Your task to perform on an android device: turn pop-ups on in chrome Image 0: 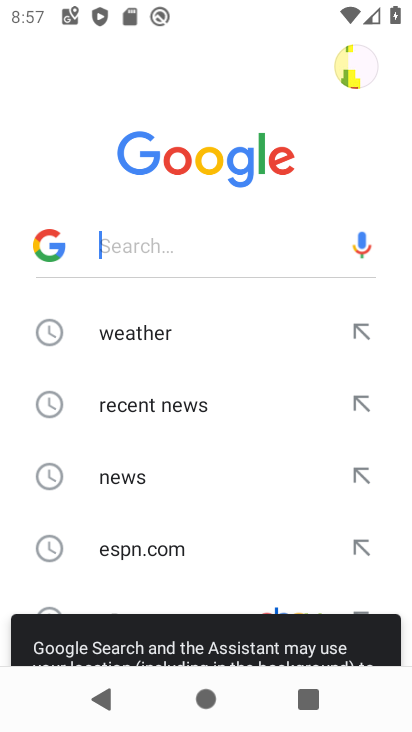
Step 0: click (221, 525)
Your task to perform on an android device: turn pop-ups on in chrome Image 1: 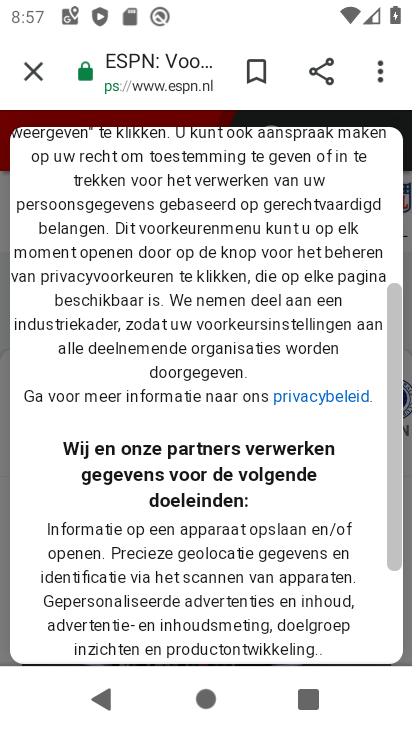
Step 1: press home button
Your task to perform on an android device: turn pop-ups on in chrome Image 2: 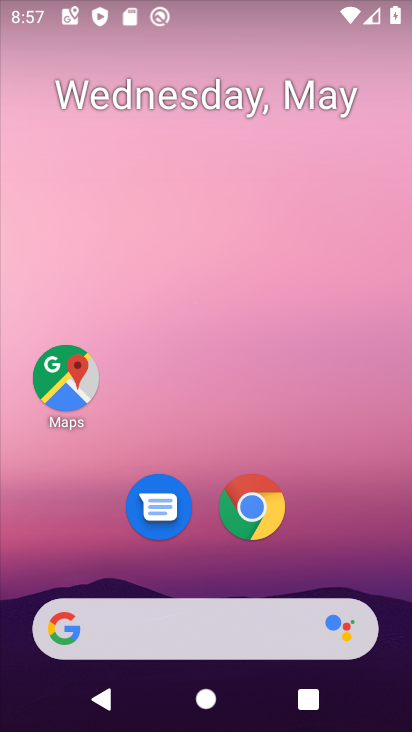
Step 2: click (270, 505)
Your task to perform on an android device: turn pop-ups on in chrome Image 3: 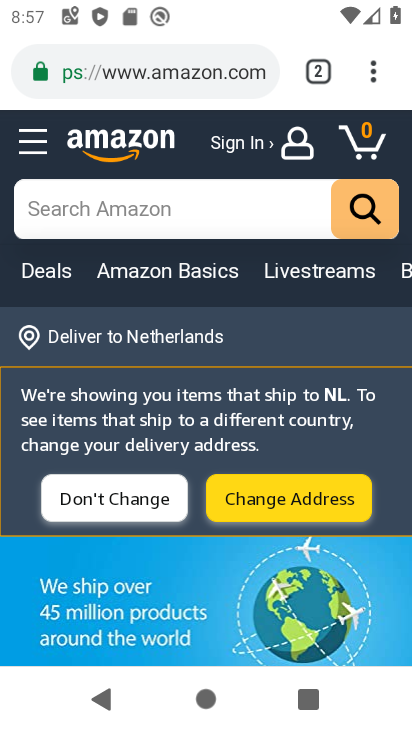
Step 3: click (365, 72)
Your task to perform on an android device: turn pop-ups on in chrome Image 4: 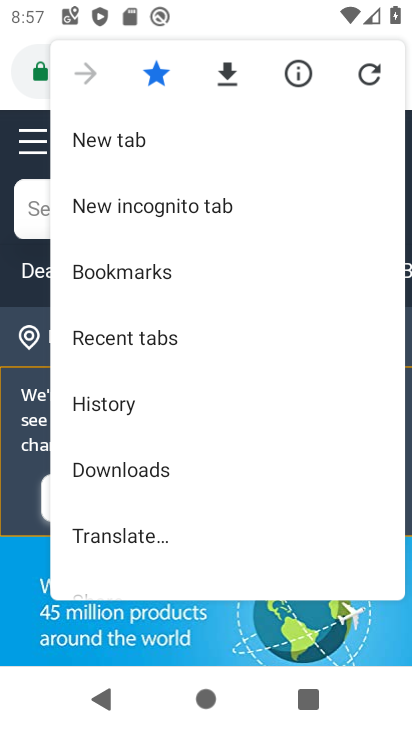
Step 4: drag from (319, 547) to (309, 123)
Your task to perform on an android device: turn pop-ups on in chrome Image 5: 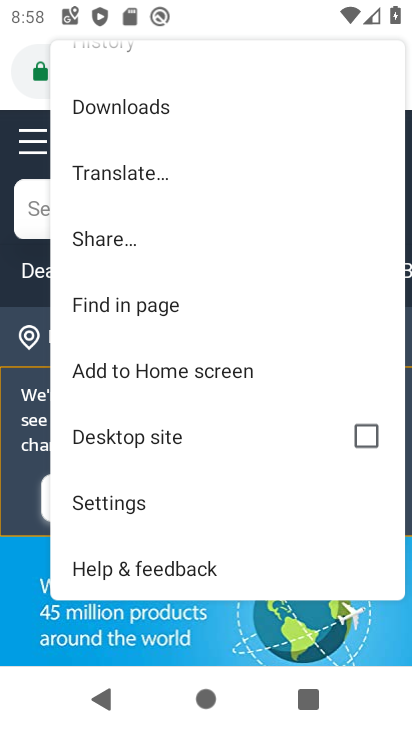
Step 5: click (228, 506)
Your task to perform on an android device: turn pop-ups on in chrome Image 6: 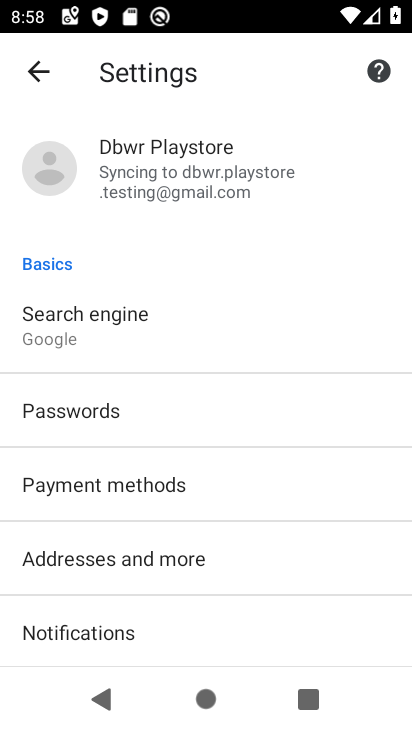
Step 6: drag from (283, 650) to (257, 217)
Your task to perform on an android device: turn pop-ups on in chrome Image 7: 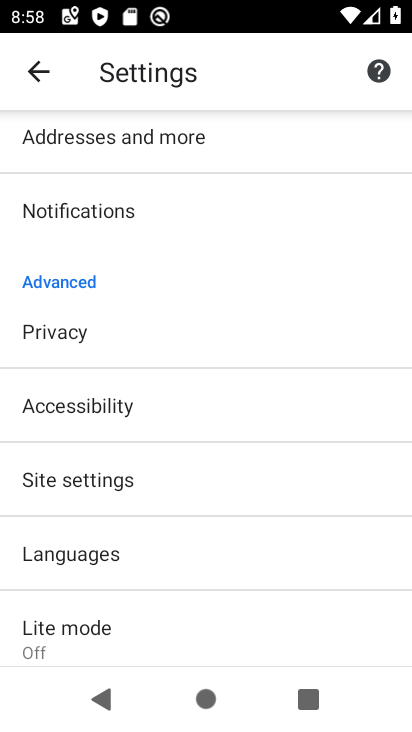
Step 7: click (233, 495)
Your task to perform on an android device: turn pop-ups on in chrome Image 8: 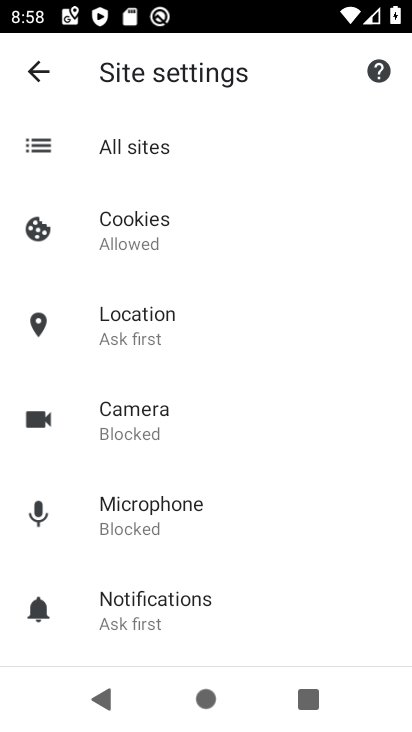
Step 8: drag from (284, 585) to (186, 130)
Your task to perform on an android device: turn pop-ups on in chrome Image 9: 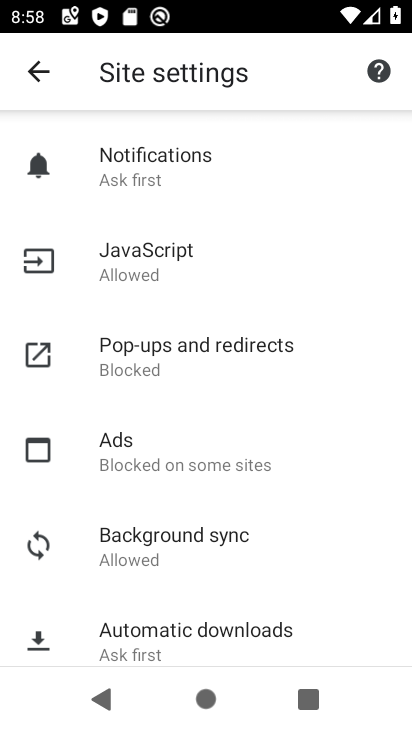
Step 9: click (179, 366)
Your task to perform on an android device: turn pop-ups on in chrome Image 10: 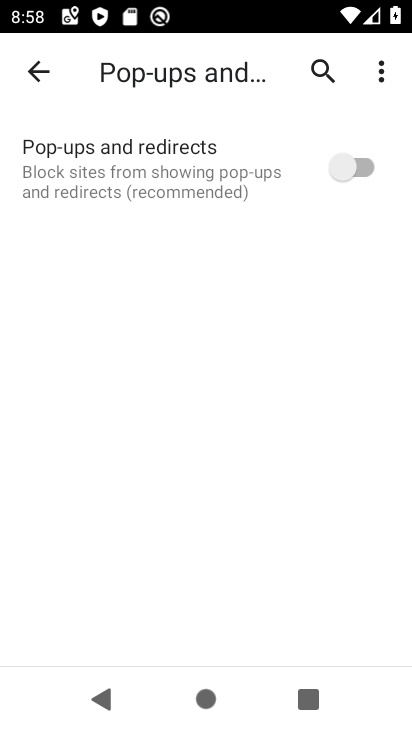
Step 10: click (364, 176)
Your task to perform on an android device: turn pop-ups on in chrome Image 11: 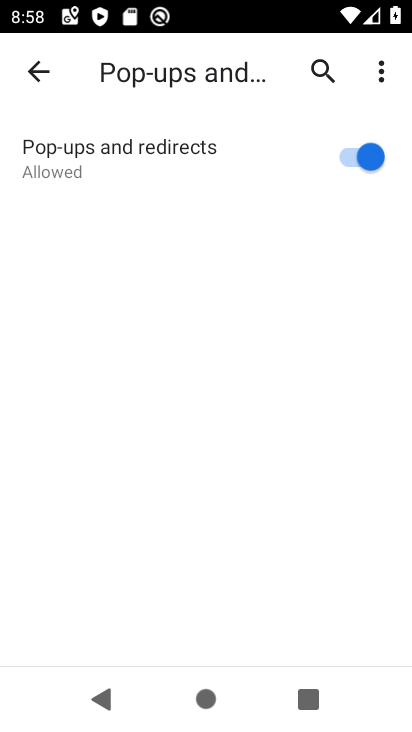
Step 11: task complete